Your task to perform on an android device: check battery use Image 0: 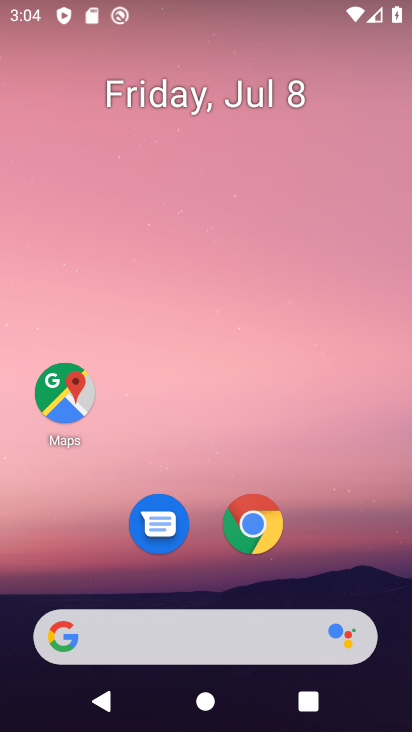
Step 0: drag from (342, 529) to (277, 58)
Your task to perform on an android device: check battery use Image 1: 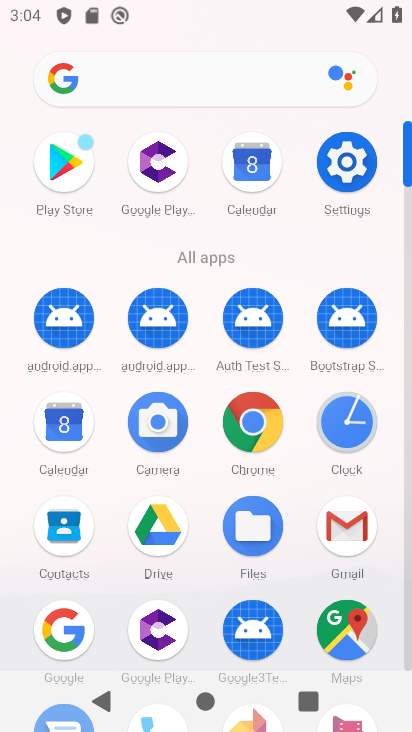
Step 1: click (350, 166)
Your task to perform on an android device: check battery use Image 2: 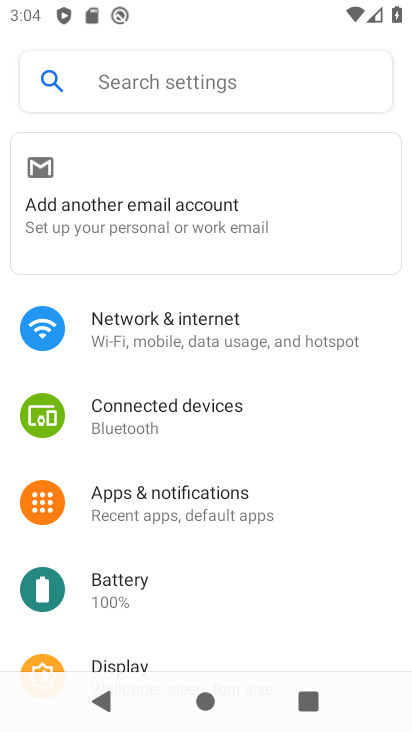
Step 2: click (163, 585)
Your task to perform on an android device: check battery use Image 3: 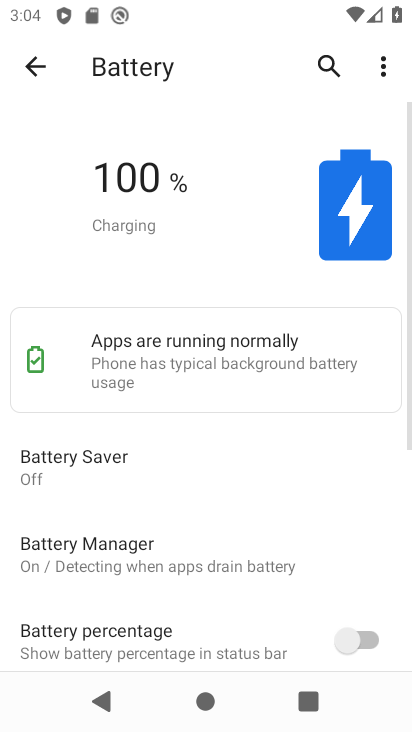
Step 3: click (383, 58)
Your task to perform on an android device: check battery use Image 4: 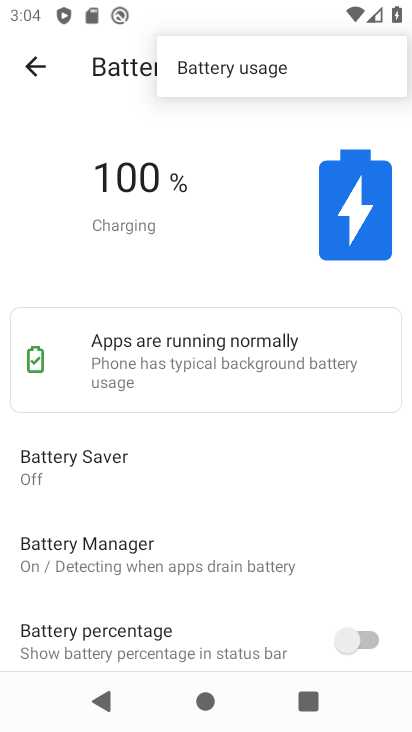
Step 4: click (276, 76)
Your task to perform on an android device: check battery use Image 5: 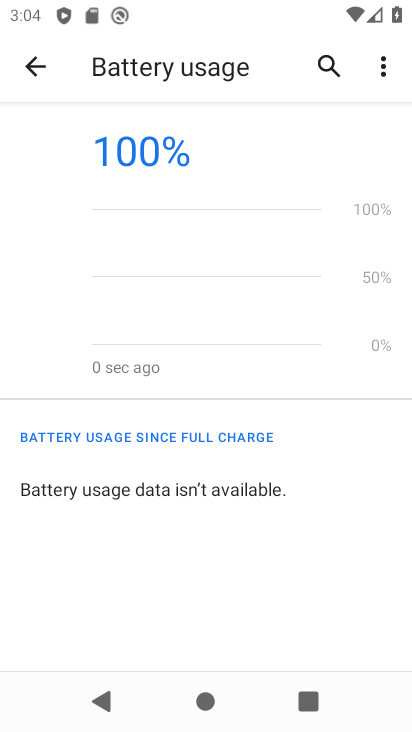
Step 5: task complete